Your task to perform on an android device: Go to sound settings Image 0: 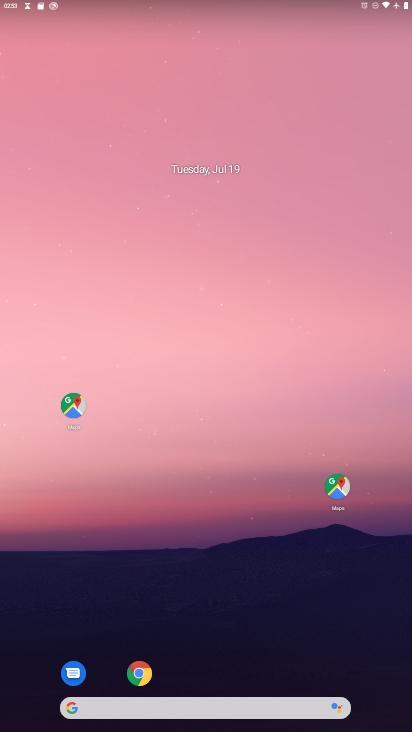
Step 0: drag from (221, 595) to (291, 85)
Your task to perform on an android device: Go to sound settings Image 1: 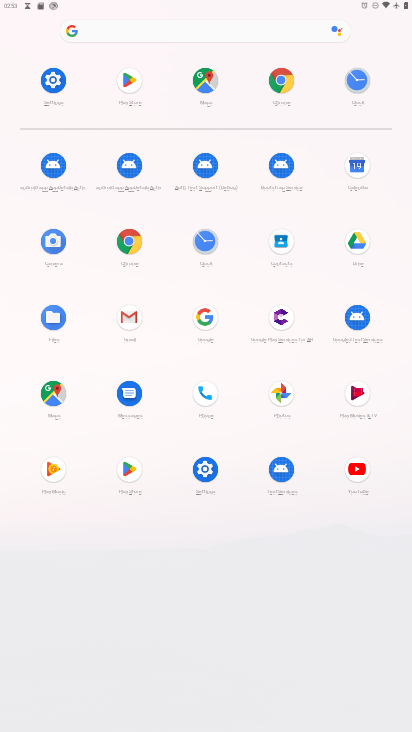
Step 1: click (205, 454)
Your task to perform on an android device: Go to sound settings Image 2: 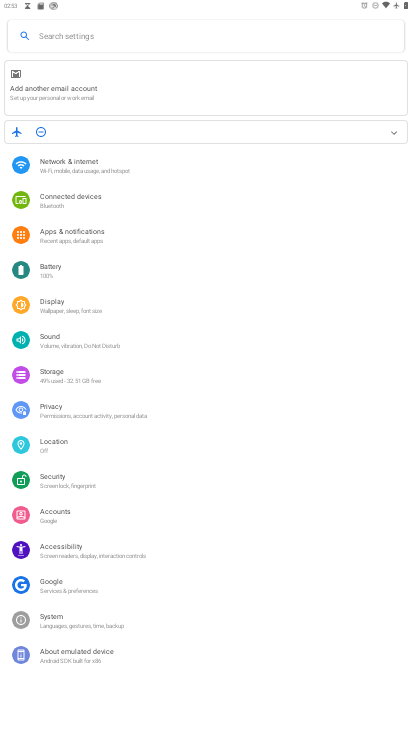
Step 2: click (66, 342)
Your task to perform on an android device: Go to sound settings Image 3: 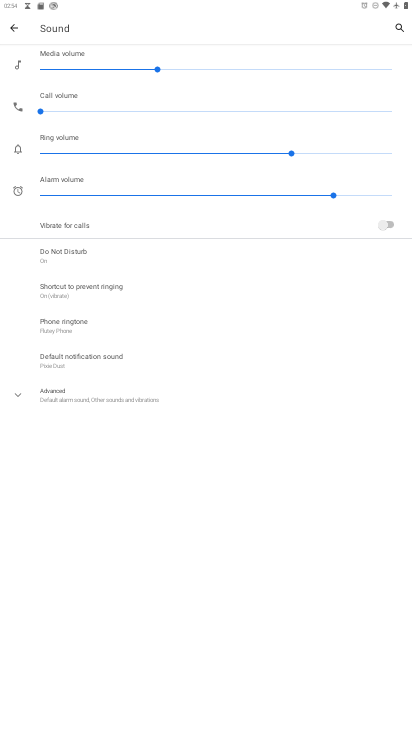
Step 3: task complete